Your task to perform on an android device: Open Google Image 0: 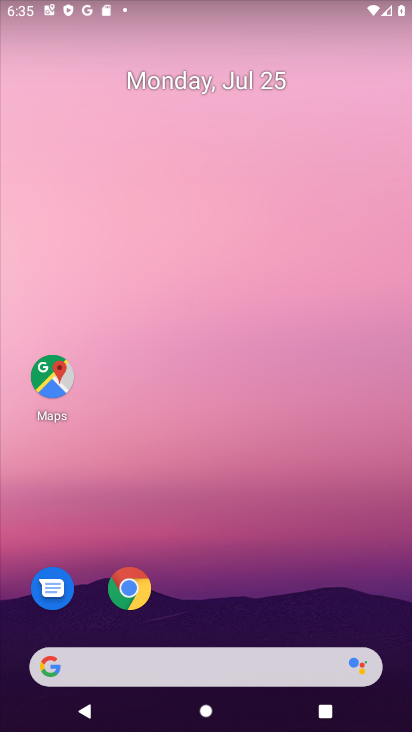
Step 0: click (152, 666)
Your task to perform on an android device: Open Google Image 1: 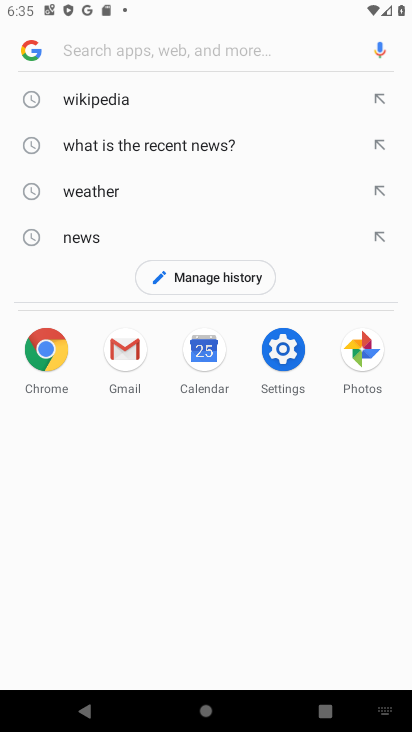
Step 1: task complete